Your task to perform on an android device: change your default location settings in chrome Image 0: 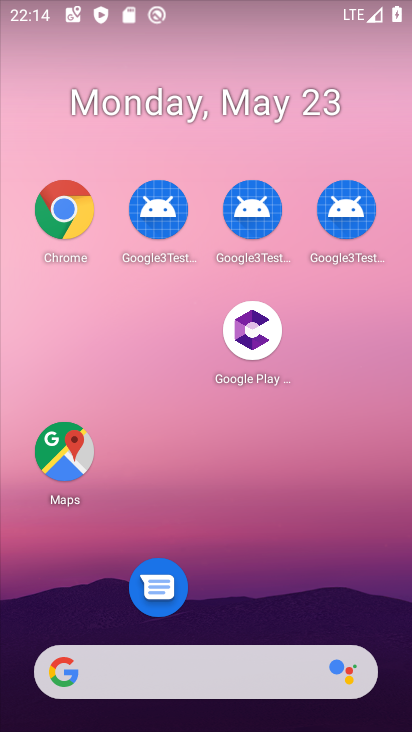
Step 0: click (66, 229)
Your task to perform on an android device: change your default location settings in chrome Image 1: 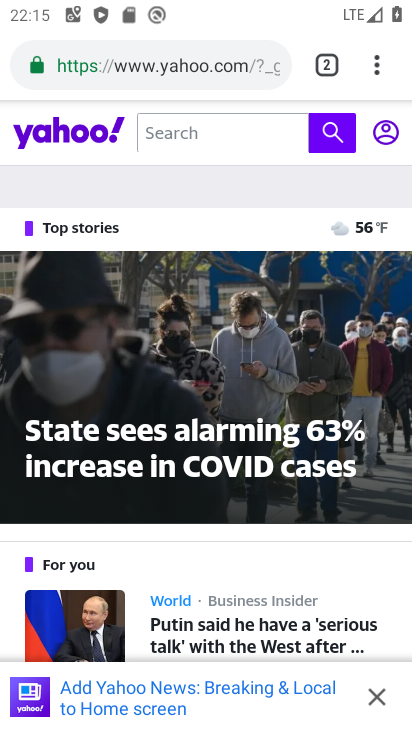
Step 1: click (383, 63)
Your task to perform on an android device: change your default location settings in chrome Image 2: 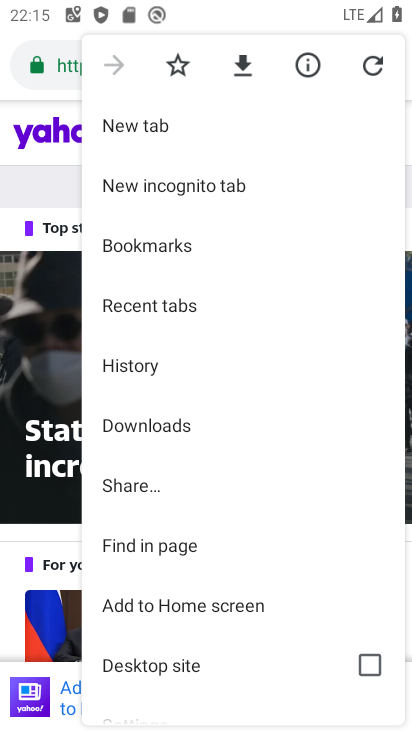
Step 2: drag from (167, 648) to (218, 271)
Your task to perform on an android device: change your default location settings in chrome Image 3: 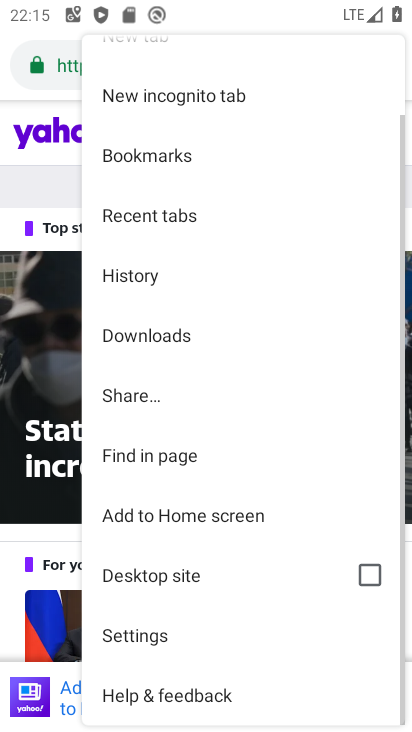
Step 3: click (150, 631)
Your task to perform on an android device: change your default location settings in chrome Image 4: 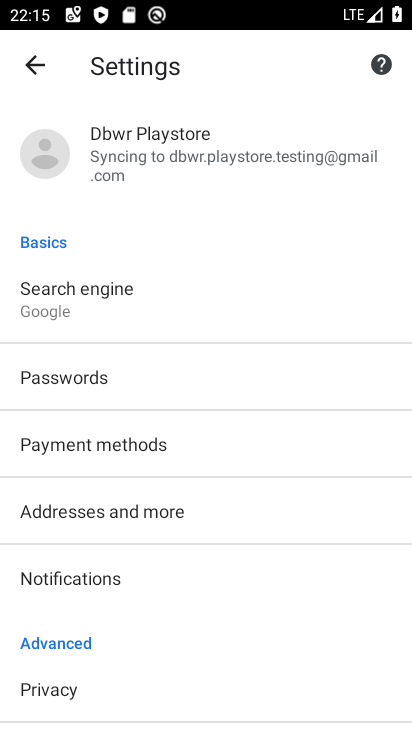
Step 4: drag from (217, 613) to (282, 216)
Your task to perform on an android device: change your default location settings in chrome Image 5: 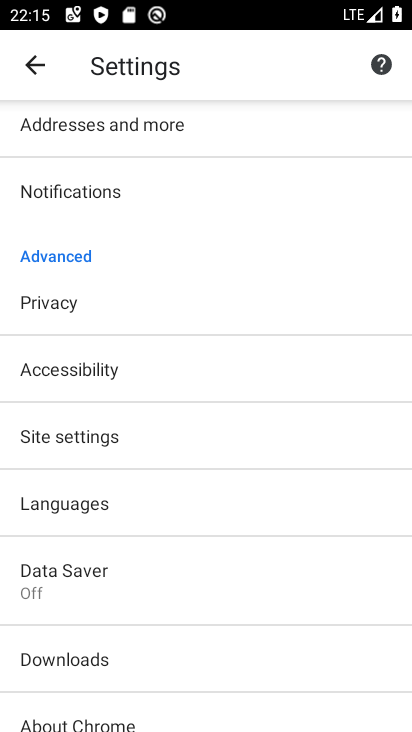
Step 5: click (136, 430)
Your task to perform on an android device: change your default location settings in chrome Image 6: 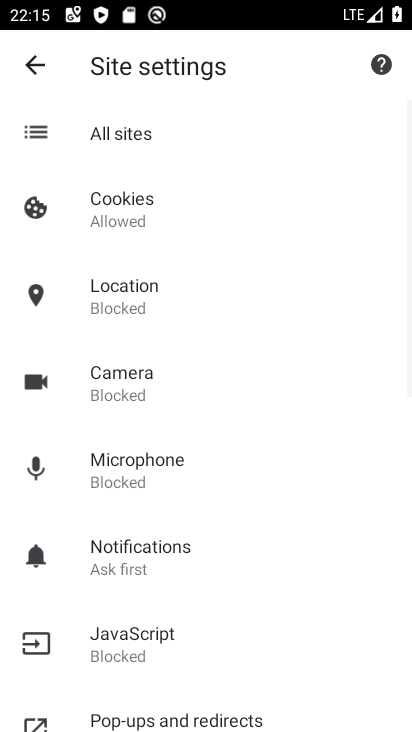
Step 6: click (140, 295)
Your task to perform on an android device: change your default location settings in chrome Image 7: 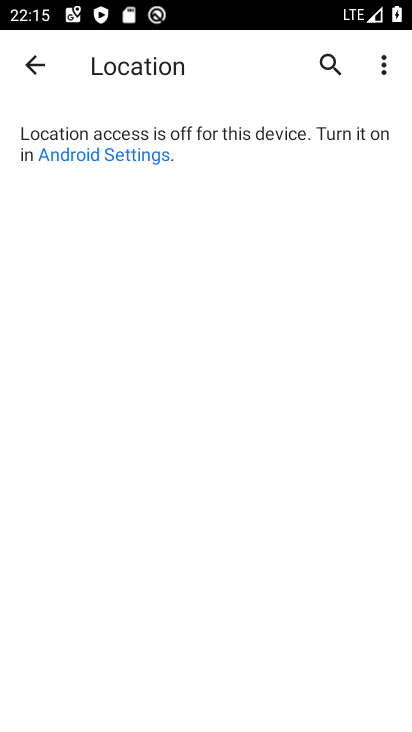
Step 7: task complete